Your task to perform on an android device: check data usage Image 0: 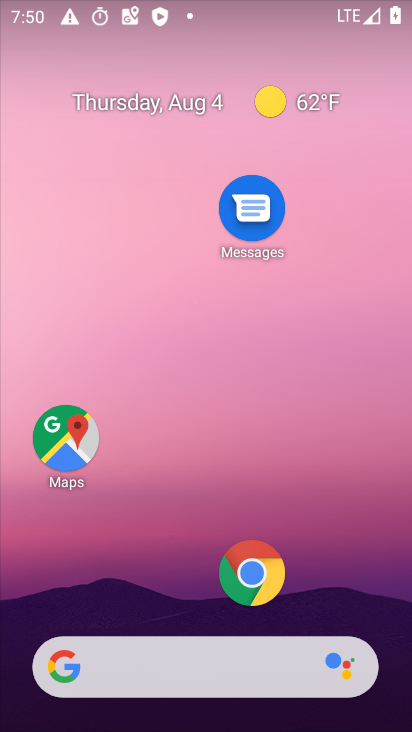
Step 0: drag from (173, 426) to (150, 3)
Your task to perform on an android device: check data usage Image 1: 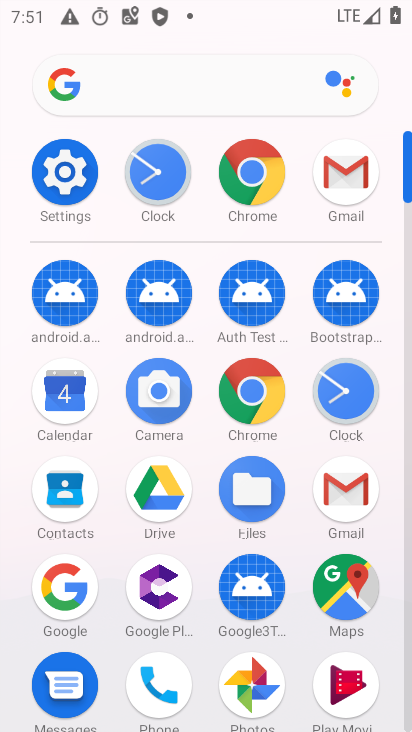
Step 1: click (74, 185)
Your task to perform on an android device: check data usage Image 2: 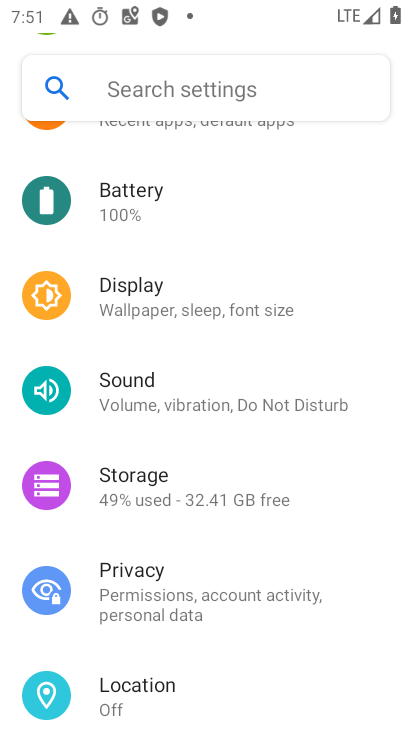
Step 2: drag from (245, 230) to (294, 728)
Your task to perform on an android device: check data usage Image 3: 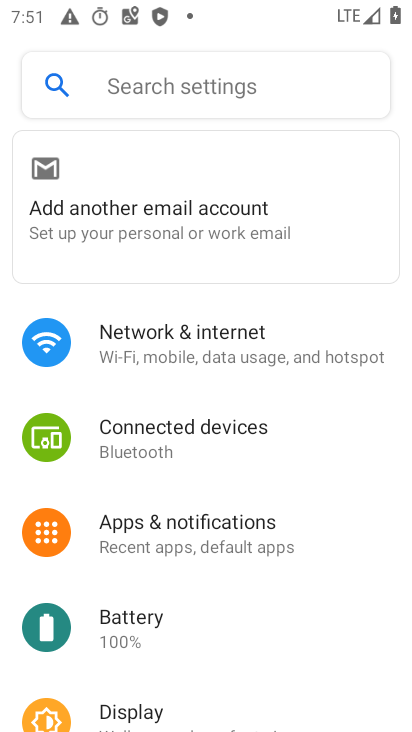
Step 3: click (192, 349)
Your task to perform on an android device: check data usage Image 4: 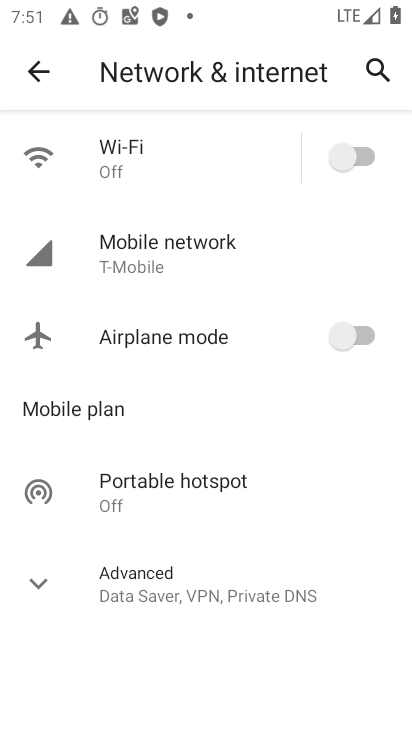
Step 4: click (139, 250)
Your task to perform on an android device: check data usage Image 5: 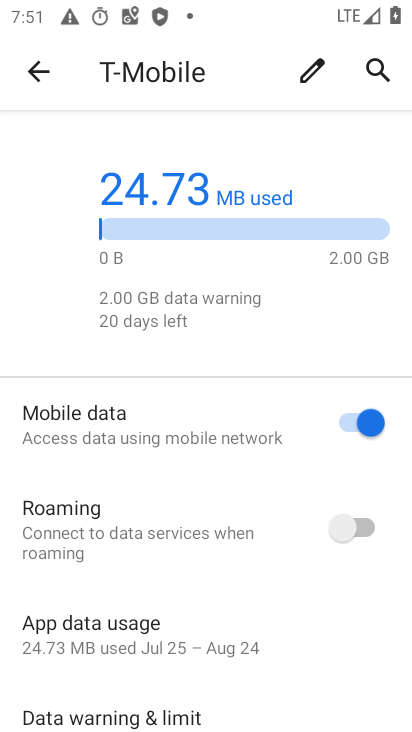
Step 5: click (103, 629)
Your task to perform on an android device: check data usage Image 6: 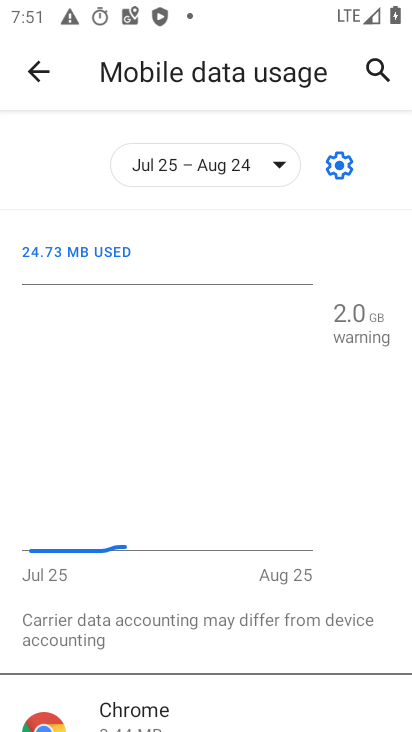
Step 6: task complete